Your task to perform on an android device: What's on my calendar today? Image 0: 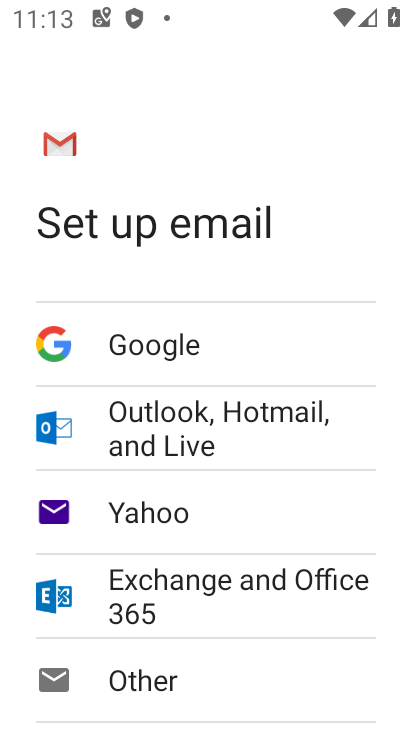
Step 0: press home button
Your task to perform on an android device: What's on my calendar today? Image 1: 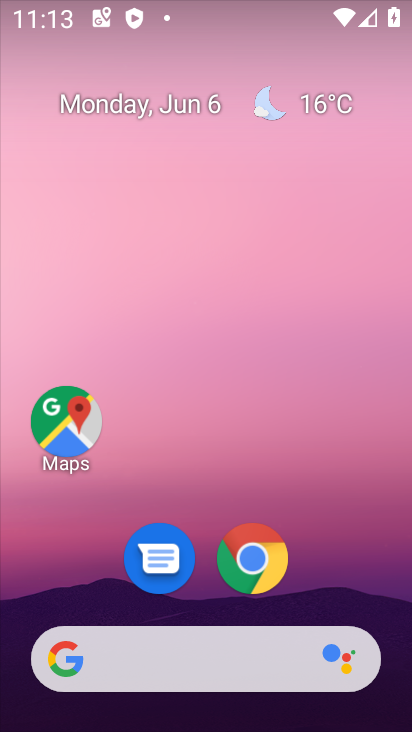
Step 1: drag from (312, 570) to (164, 1)
Your task to perform on an android device: What's on my calendar today? Image 2: 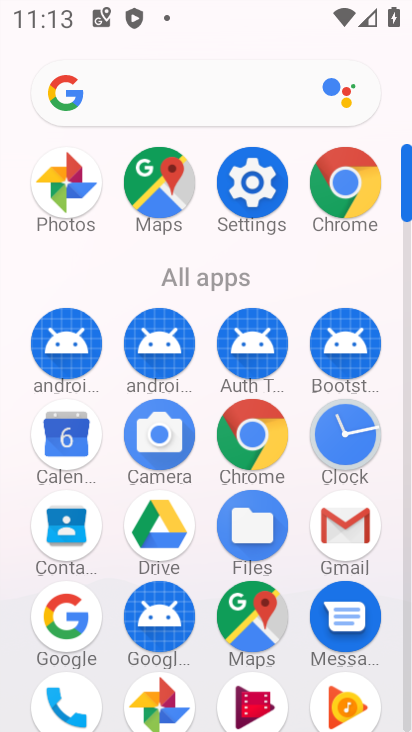
Step 2: click (59, 448)
Your task to perform on an android device: What's on my calendar today? Image 3: 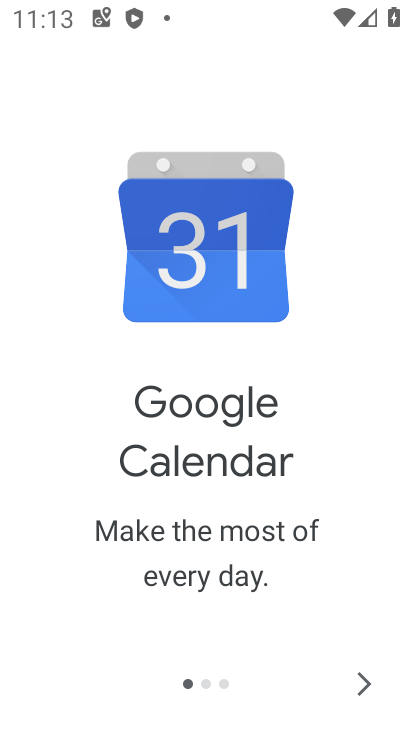
Step 3: click (364, 673)
Your task to perform on an android device: What's on my calendar today? Image 4: 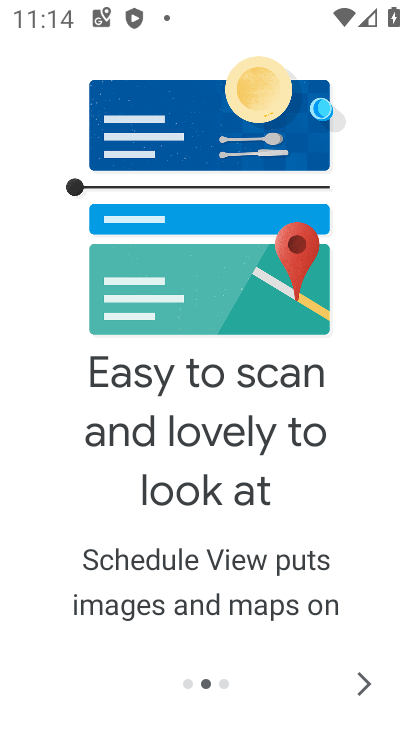
Step 4: click (365, 699)
Your task to perform on an android device: What's on my calendar today? Image 5: 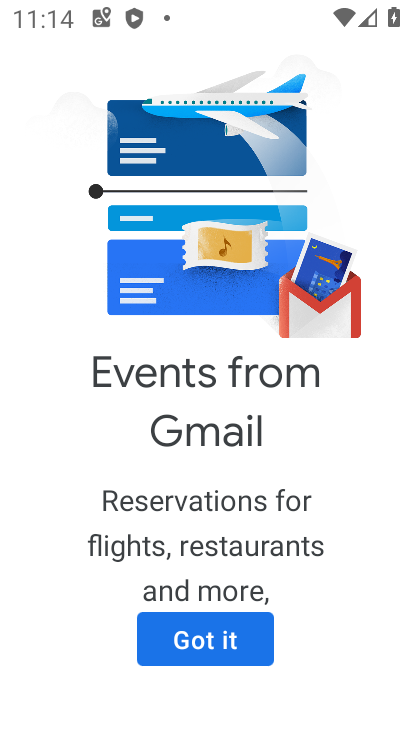
Step 5: click (236, 648)
Your task to perform on an android device: What's on my calendar today? Image 6: 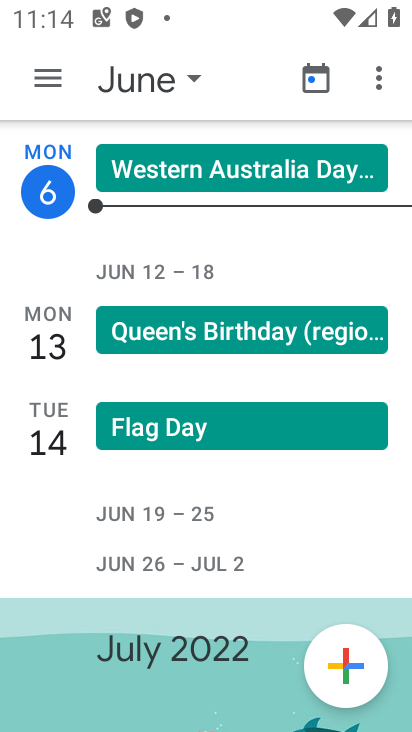
Step 6: click (119, 85)
Your task to perform on an android device: What's on my calendar today? Image 7: 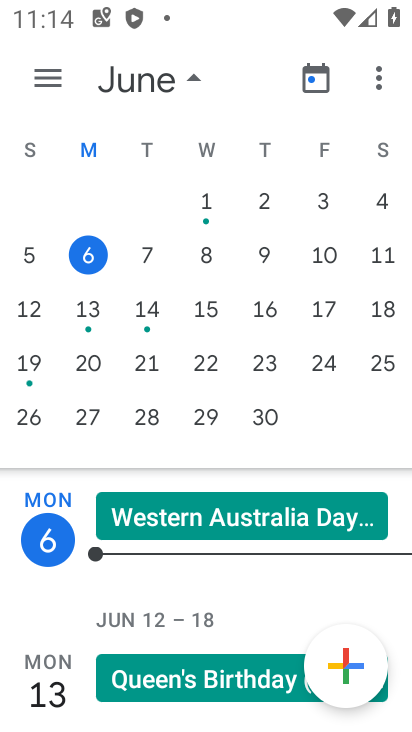
Step 7: click (100, 260)
Your task to perform on an android device: What's on my calendar today? Image 8: 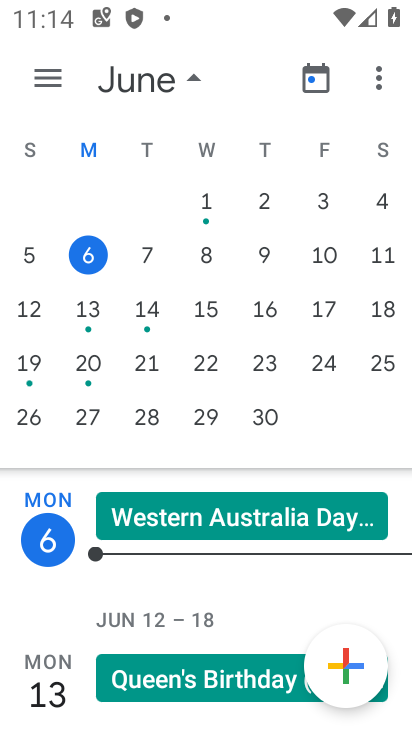
Step 8: click (45, 77)
Your task to perform on an android device: What's on my calendar today? Image 9: 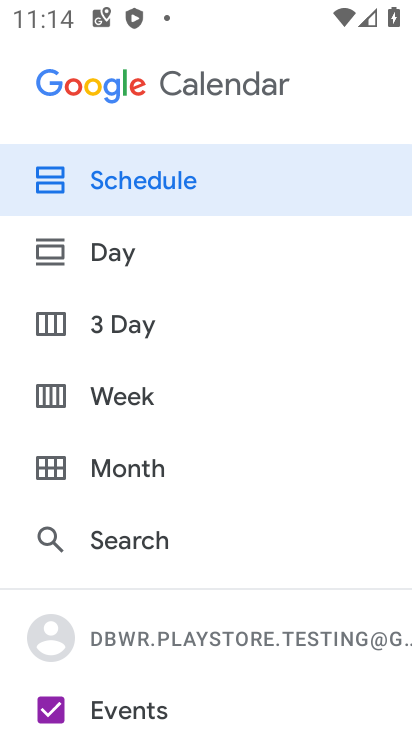
Step 9: click (112, 181)
Your task to perform on an android device: What's on my calendar today? Image 10: 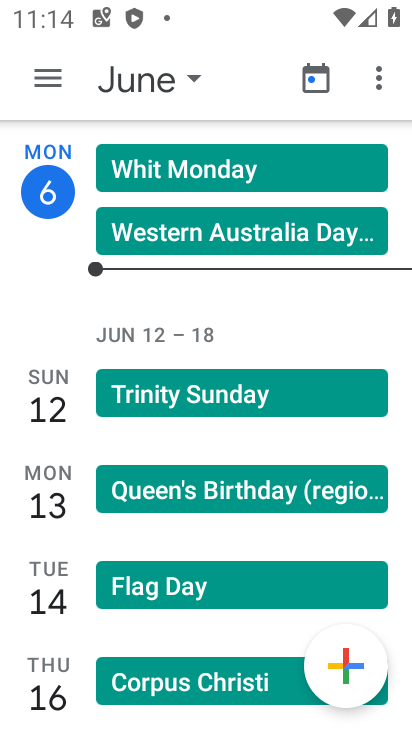
Step 10: task complete